Your task to perform on an android device: Open Reddit.com Image 0: 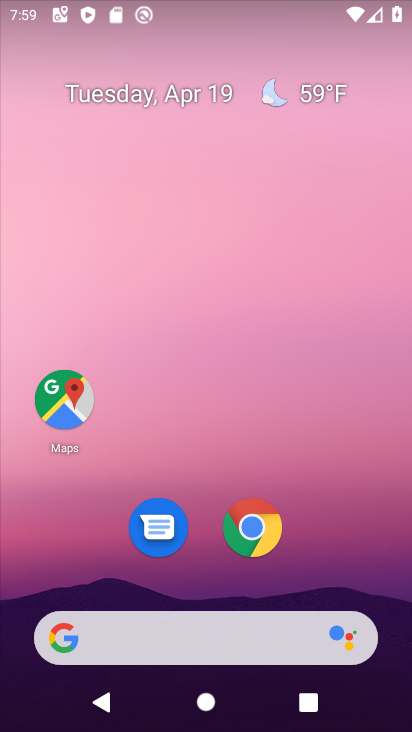
Step 0: click (203, 632)
Your task to perform on an android device: Open Reddit.com Image 1: 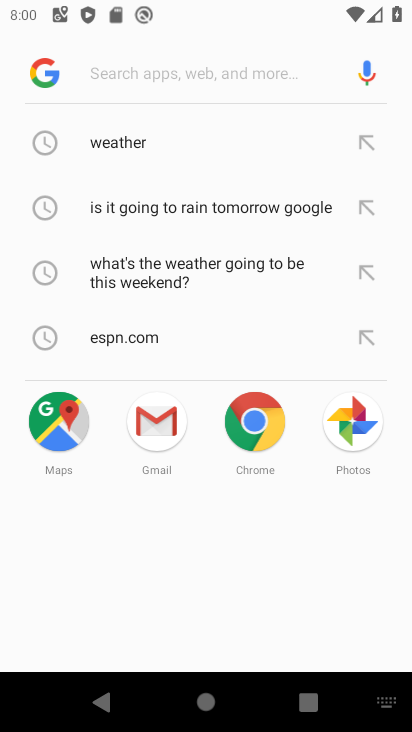
Step 1: type "Reddit.com"
Your task to perform on an android device: Open Reddit.com Image 2: 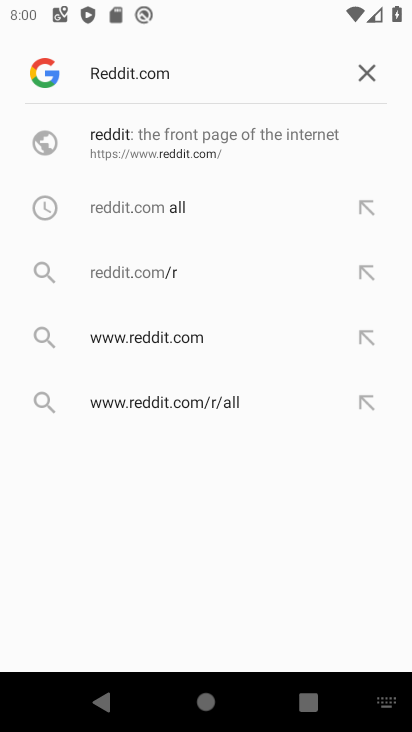
Step 2: click (175, 337)
Your task to perform on an android device: Open Reddit.com Image 3: 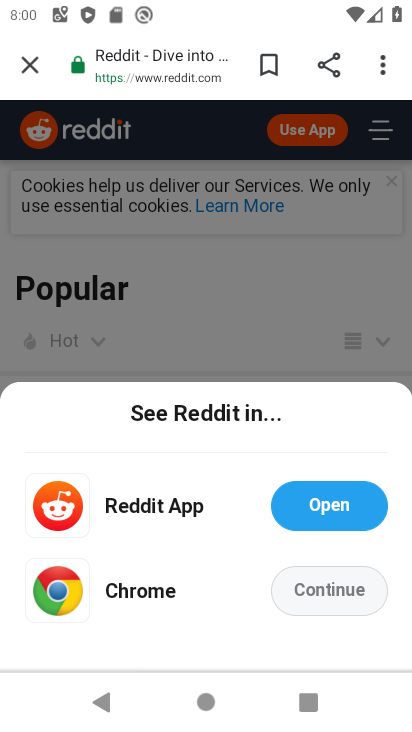
Step 3: click (317, 591)
Your task to perform on an android device: Open Reddit.com Image 4: 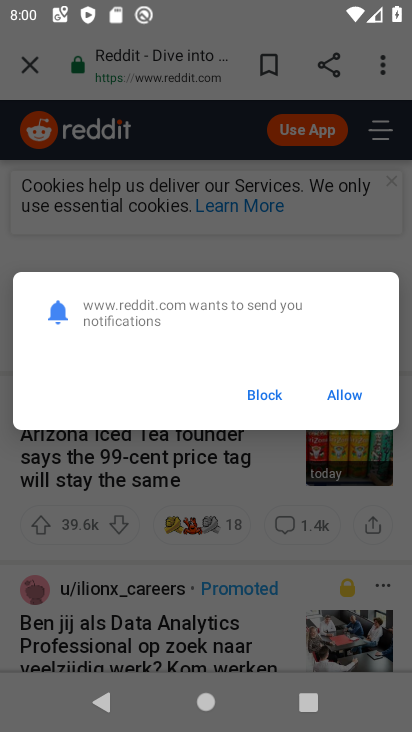
Step 4: task complete